Your task to perform on an android device: open app "Indeed Job Search" (install if not already installed) Image 0: 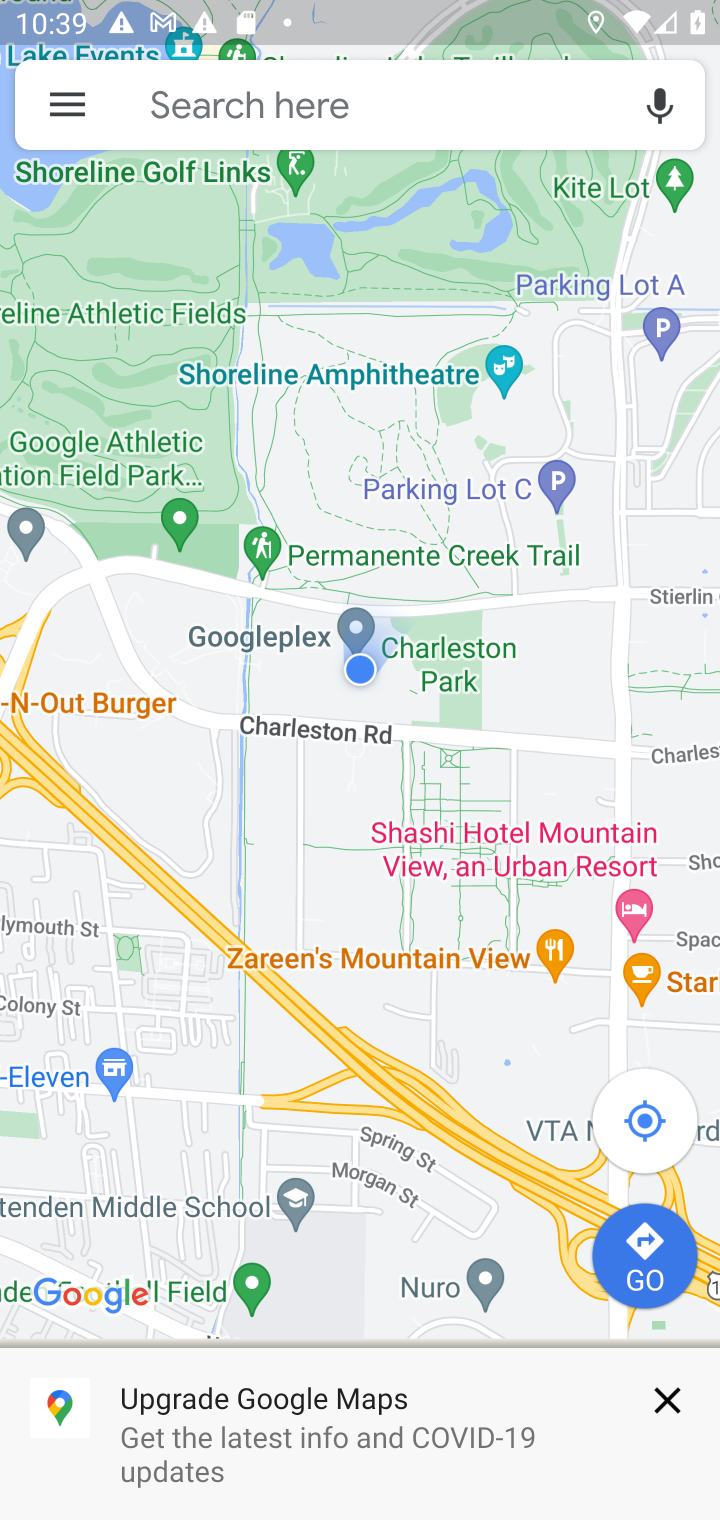
Step 0: press home button
Your task to perform on an android device: open app "Indeed Job Search" (install if not already installed) Image 1: 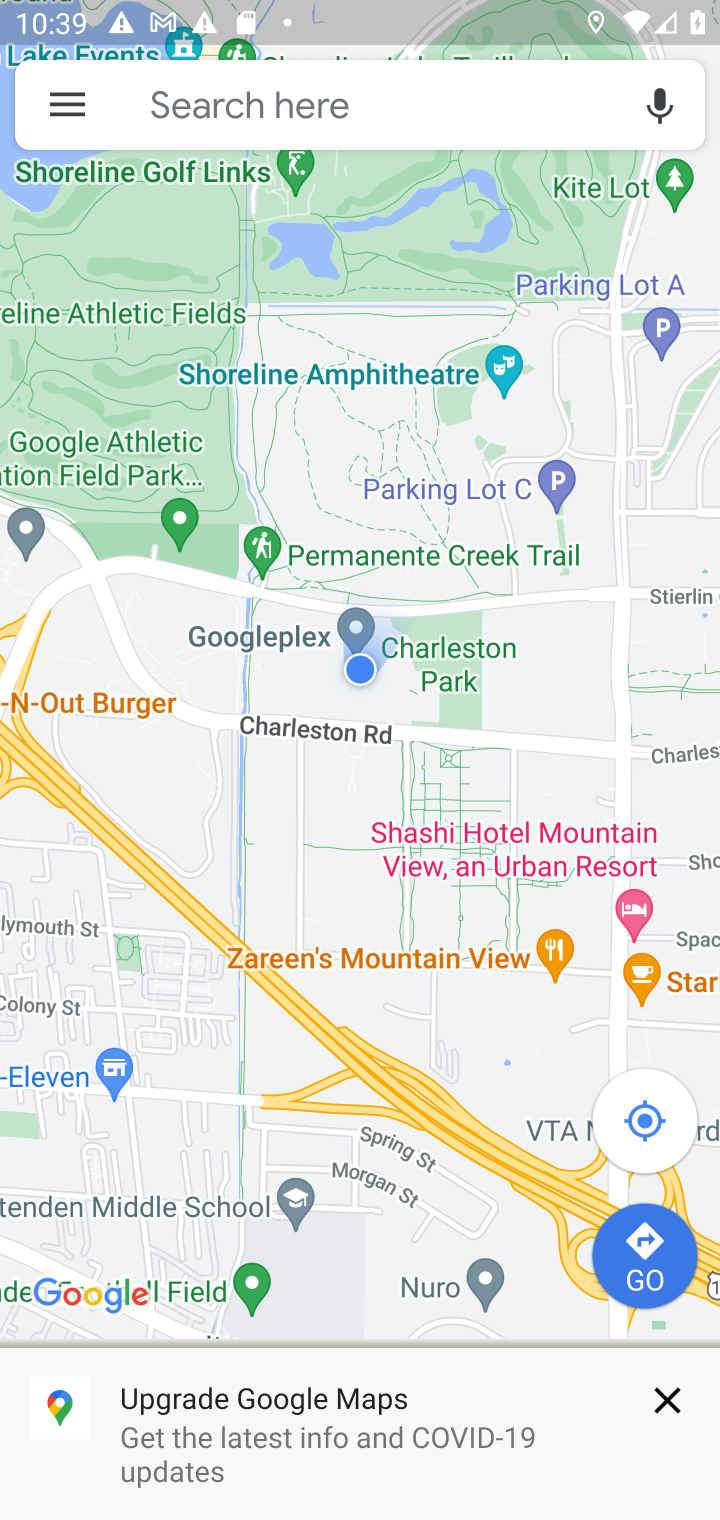
Step 1: press home button
Your task to perform on an android device: open app "Indeed Job Search" (install if not already installed) Image 2: 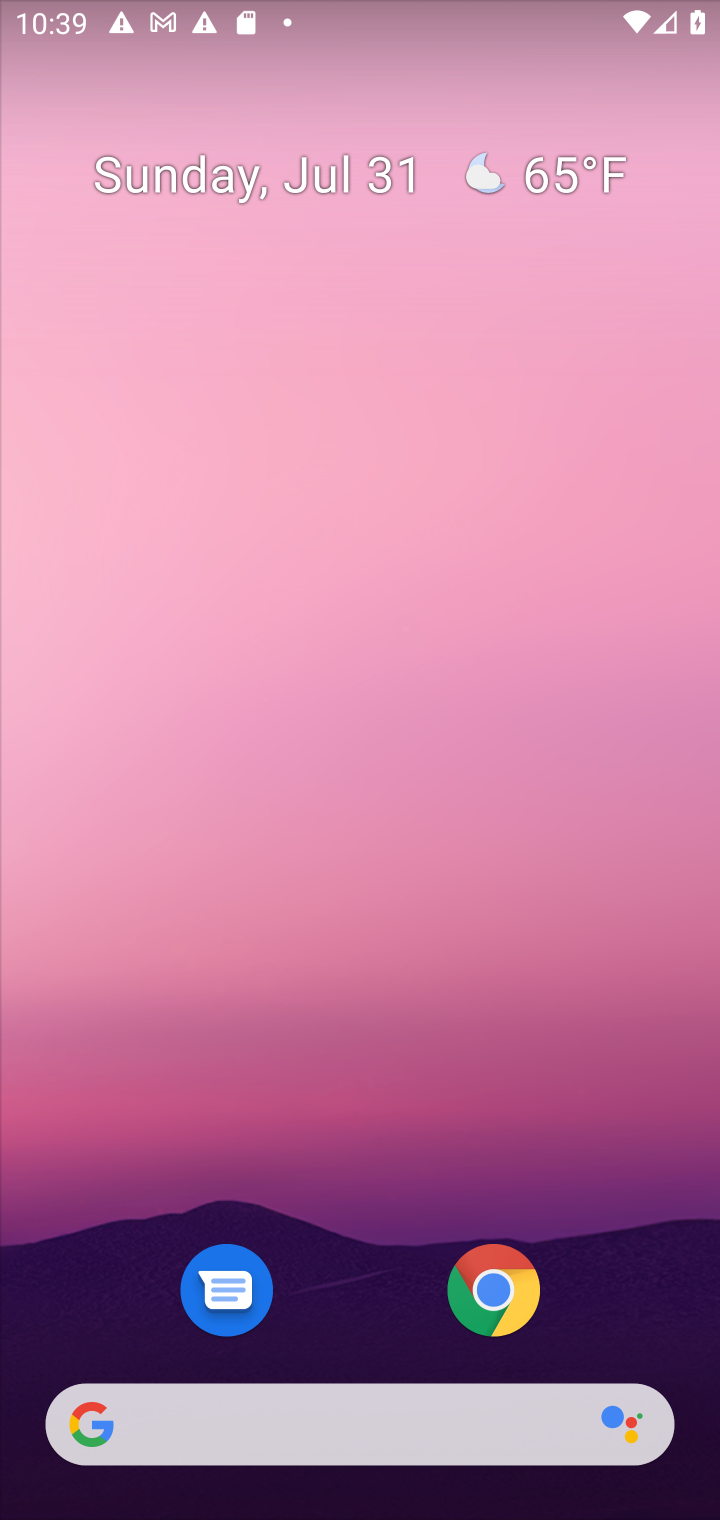
Step 2: drag from (652, 1117) to (591, 162)
Your task to perform on an android device: open app "Indeed Job Search" (install if not already installed) Image 3: 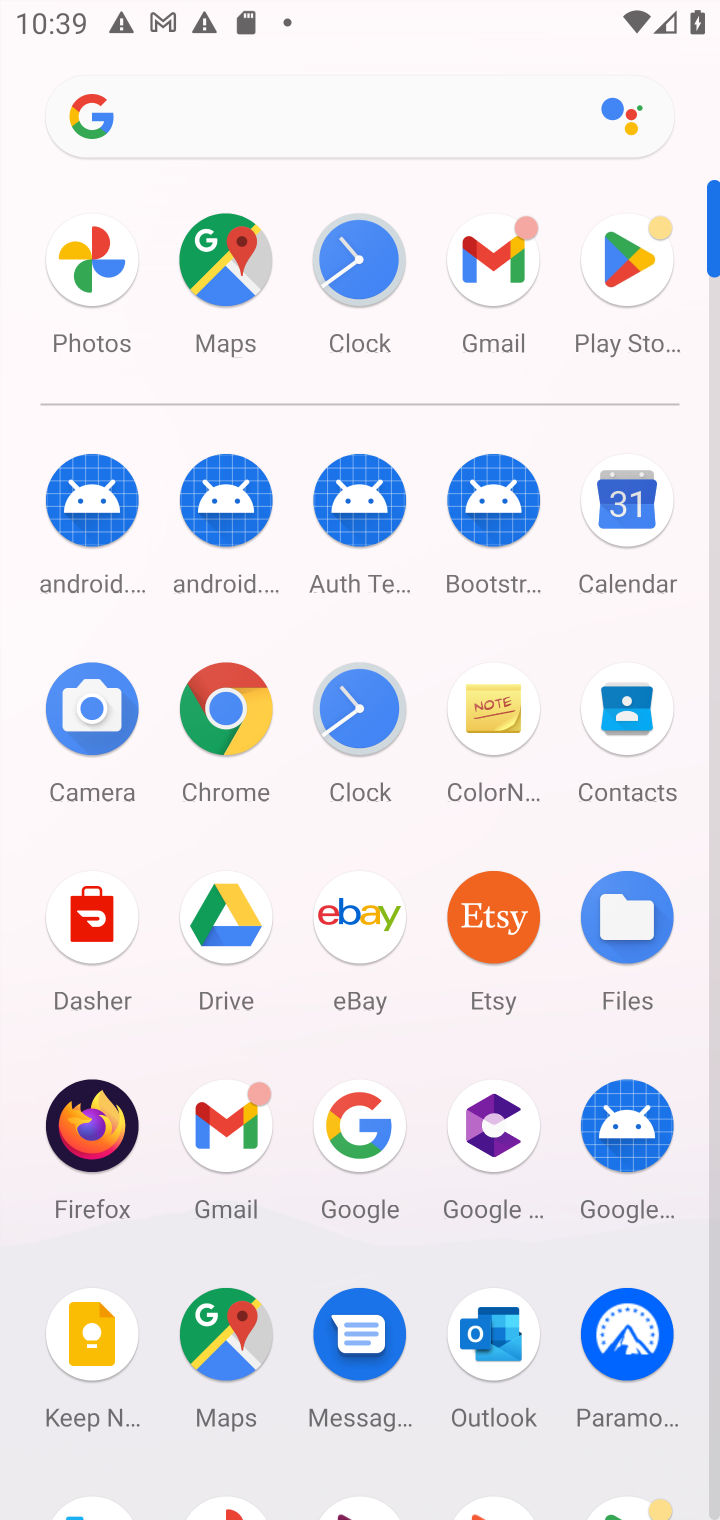
Step 3: click (622, 259)
Your task to perform on an android device: open app "Indeed Job Search" (install if not already installed) Image 4: 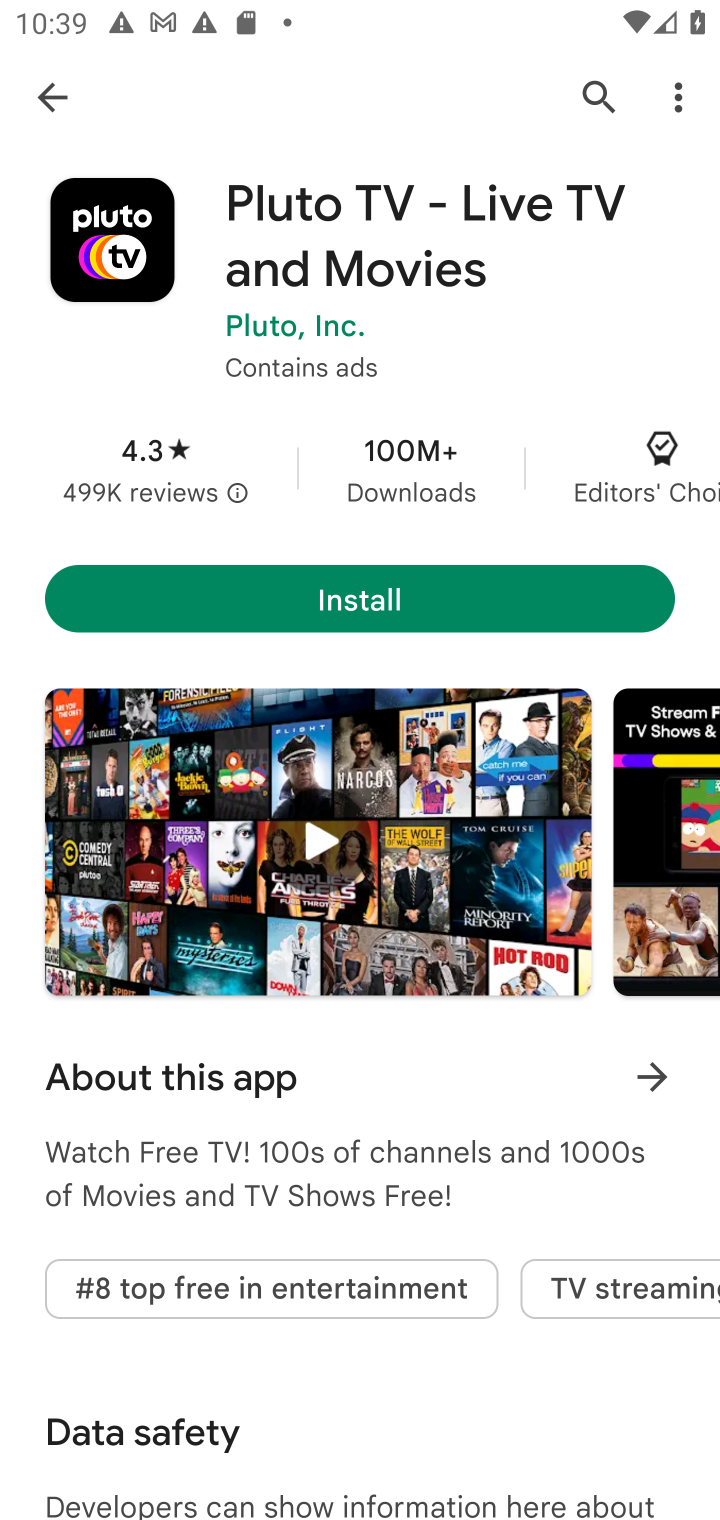
Step 4: click (597, 100)
Your task to perform on an android device: open app "Indeed Job Search" (install if not already installed) Image 5: 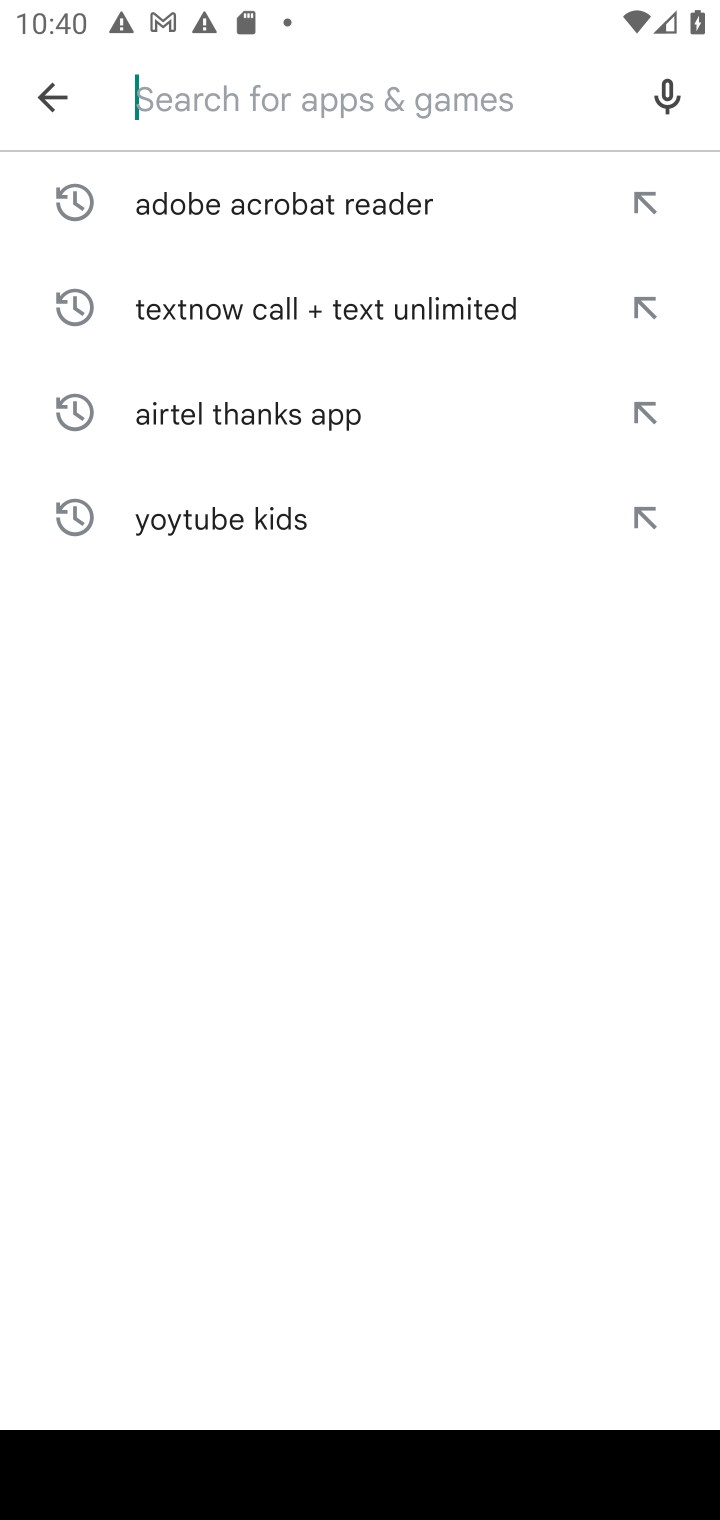
Step 5: type "indeed job search"
Your task to perform on an android device: open app "Indeed Job Search" (install if not already installed) Image 6: 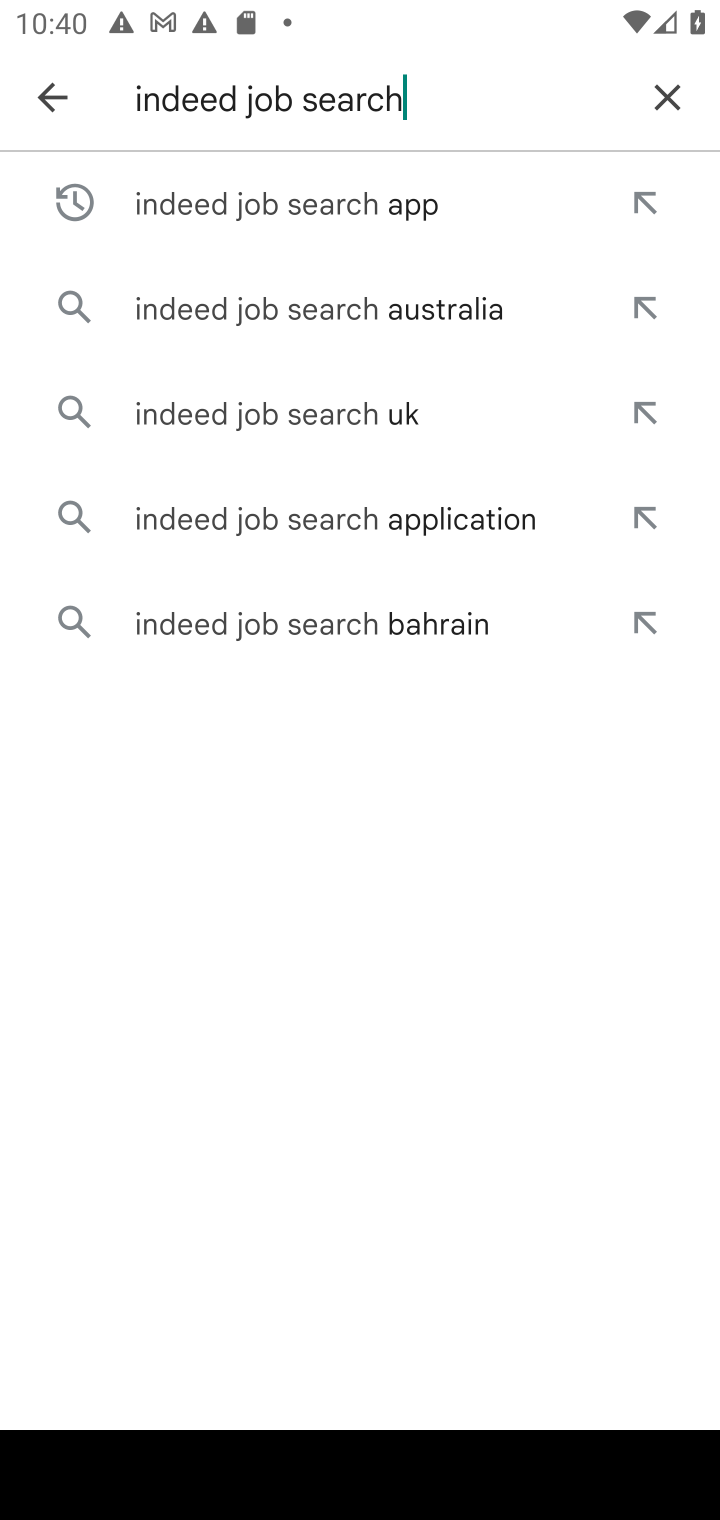
Step 6: click (423, 204)
Your task to perform on an android device: open app "Indeed Job Search" (install if not already installed) Image 7: 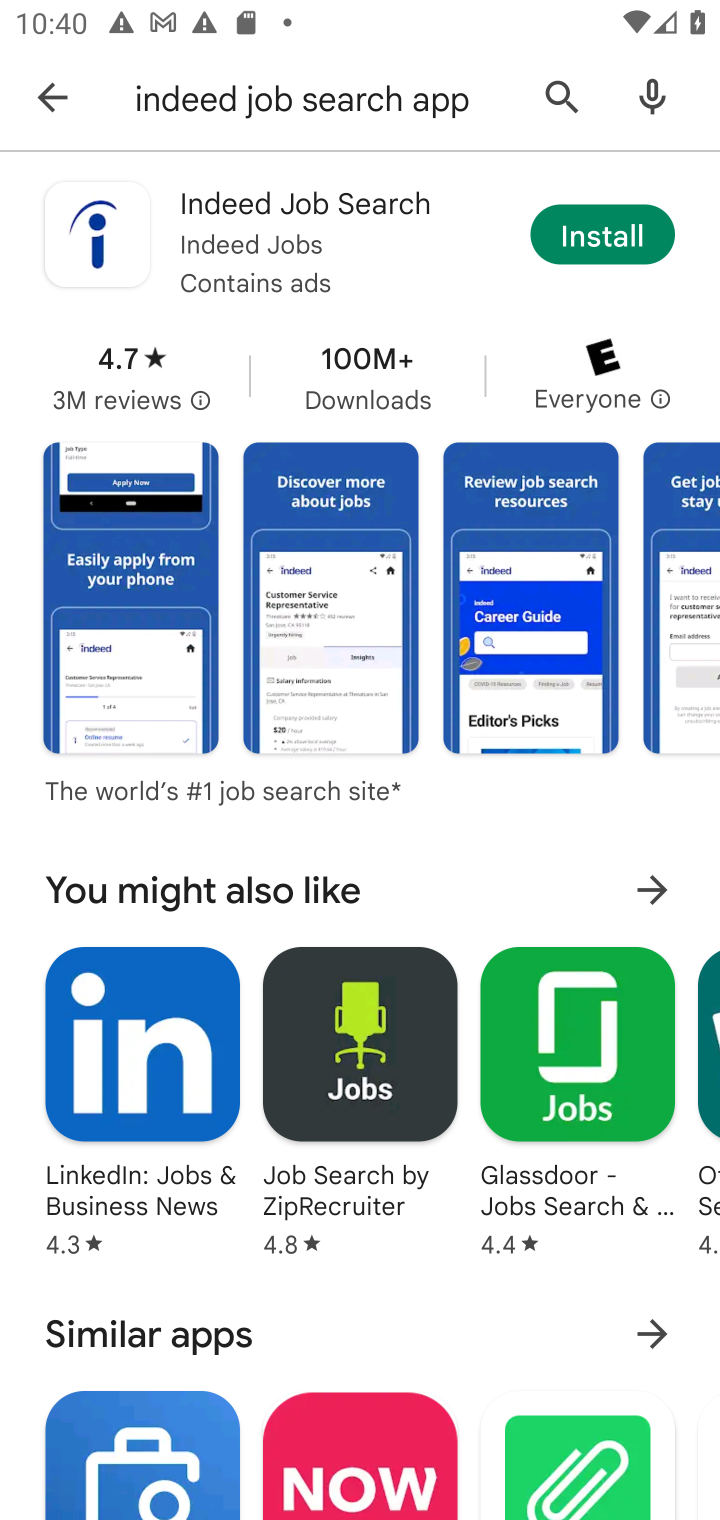
Step 7: click (613, 225)
Your task to perform on an android device: open app "Indeed Job Search" (install if not already installed) Image 8: 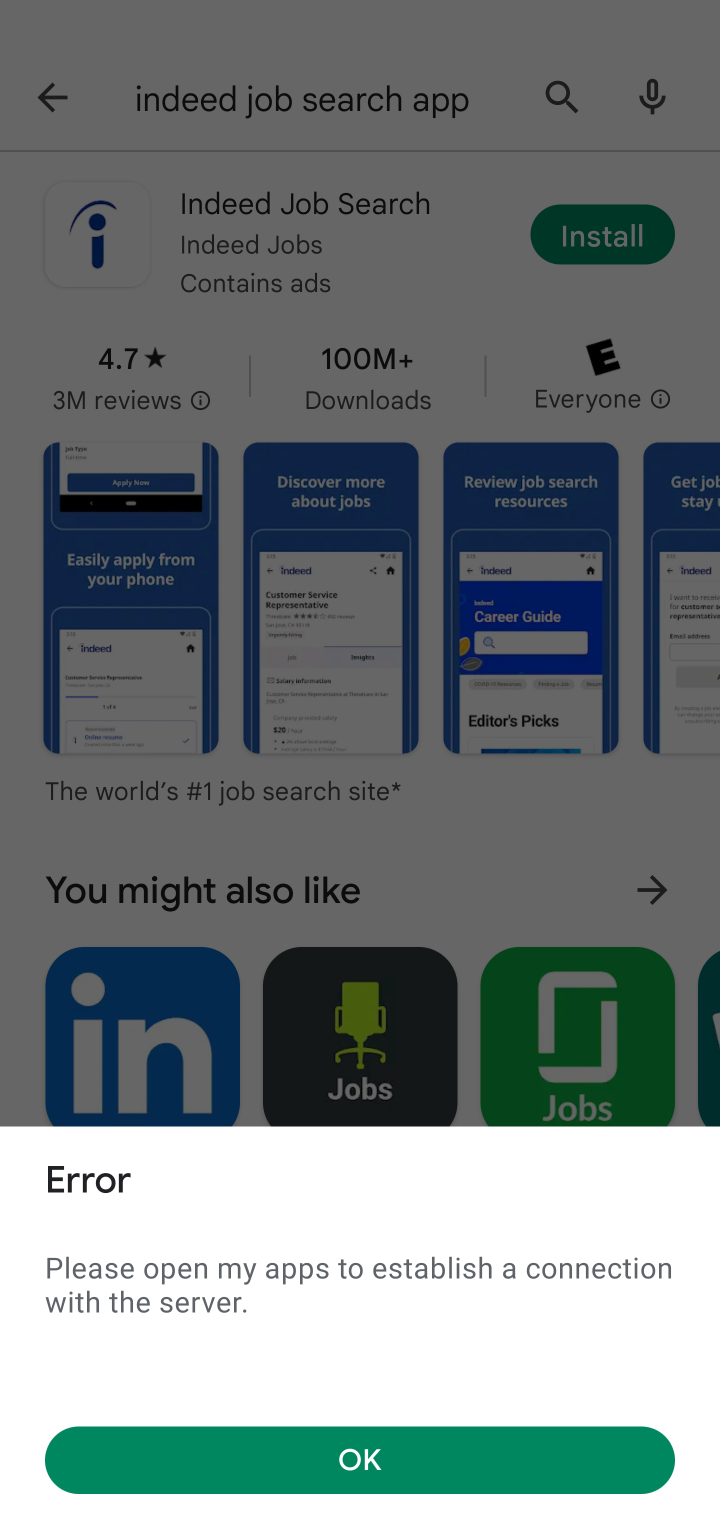
Step 8: task complete